Your task to perform on an android device: read, delete, or share a saved page in the chrome app Image 0: 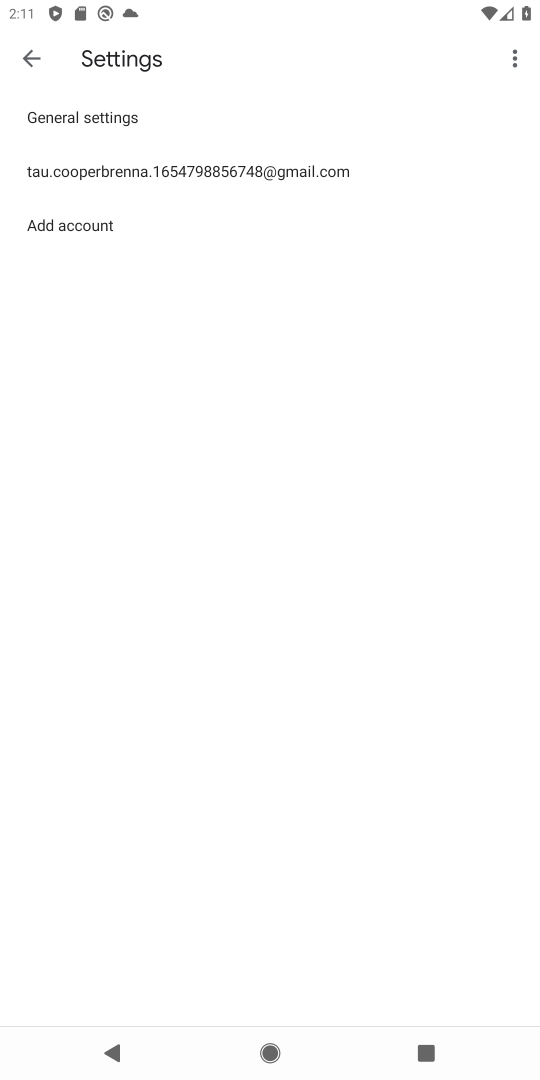
Step 0: press home button
Your task to perform on an android device: read, delete, or share a saved page in the chrome app Image 1: 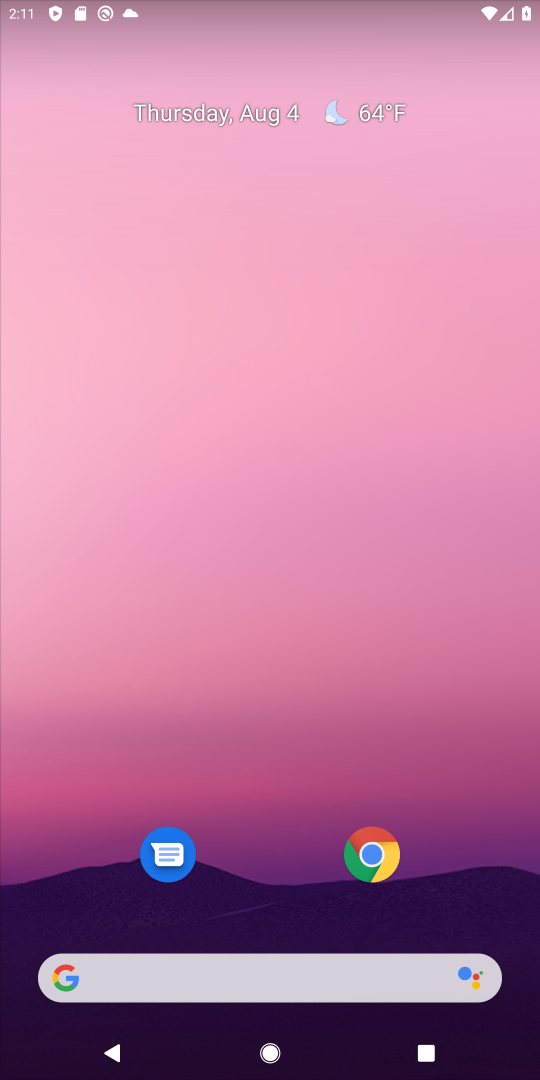
Step 1: task complete